Your task to perform on an android device: Find coffee shops on Maps Image 0: 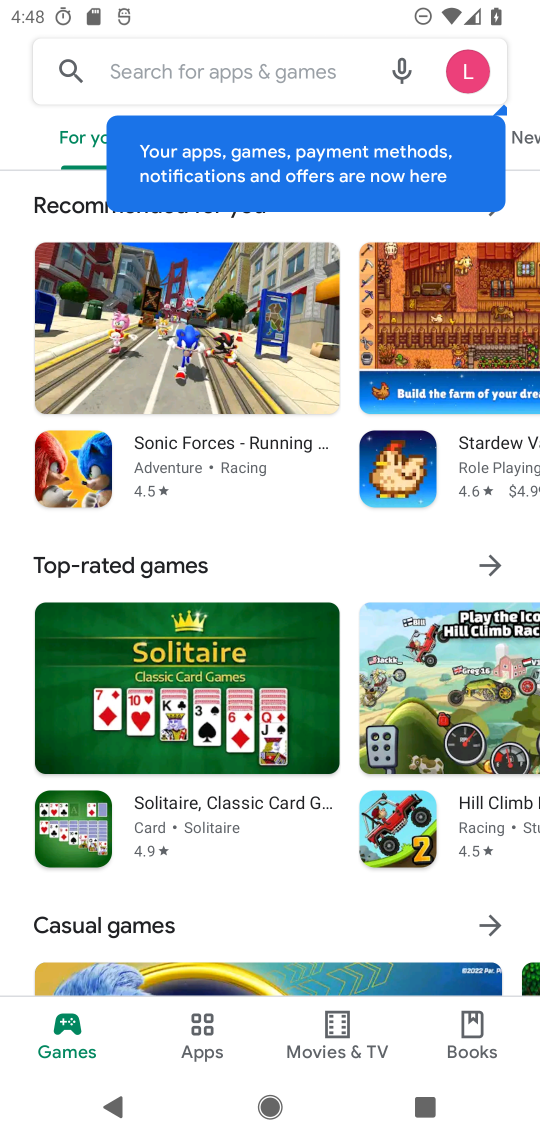
Step 0: press home button
Your task to perform on an android device: Find coffee shops on Maps Image 1: 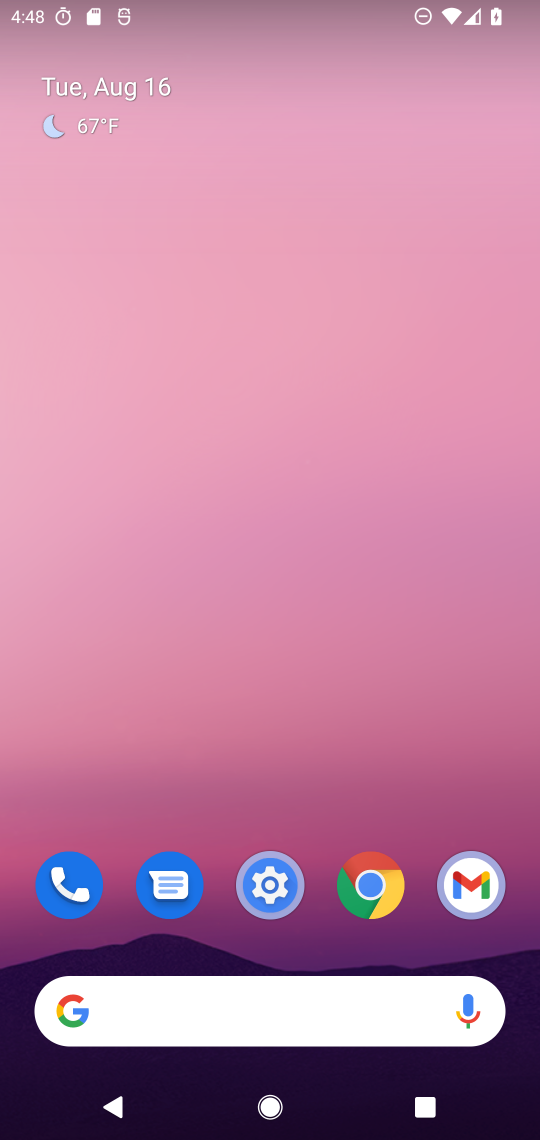
Step 1: drag from (242, 1018) to (203, 147)
Your task to perform on an android device: Find coffee shops on Maps Image 2: 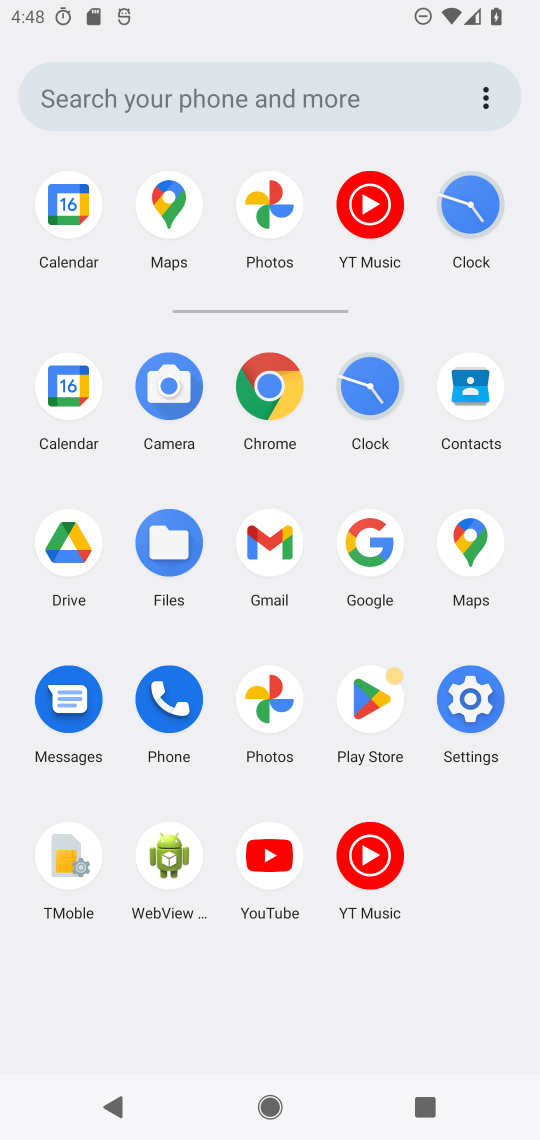
Step 2: click (472, 542)
Your task to perform on an android device: Find coffee shops on Maps Image 3: 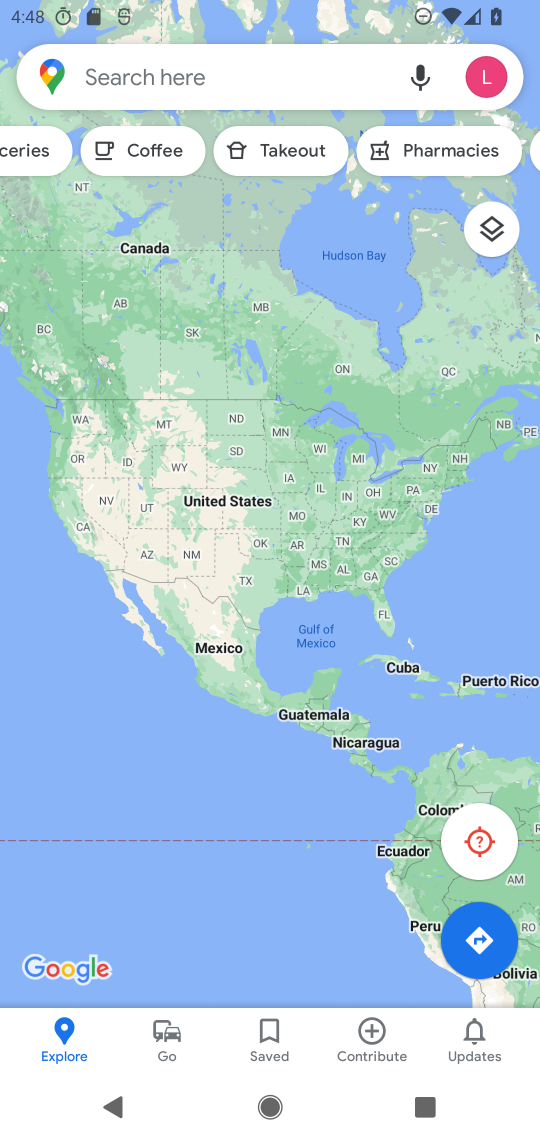
Step 3: click (249, 57)
Your task to perform on an android device: Find coffee shops on Maps Image 4: 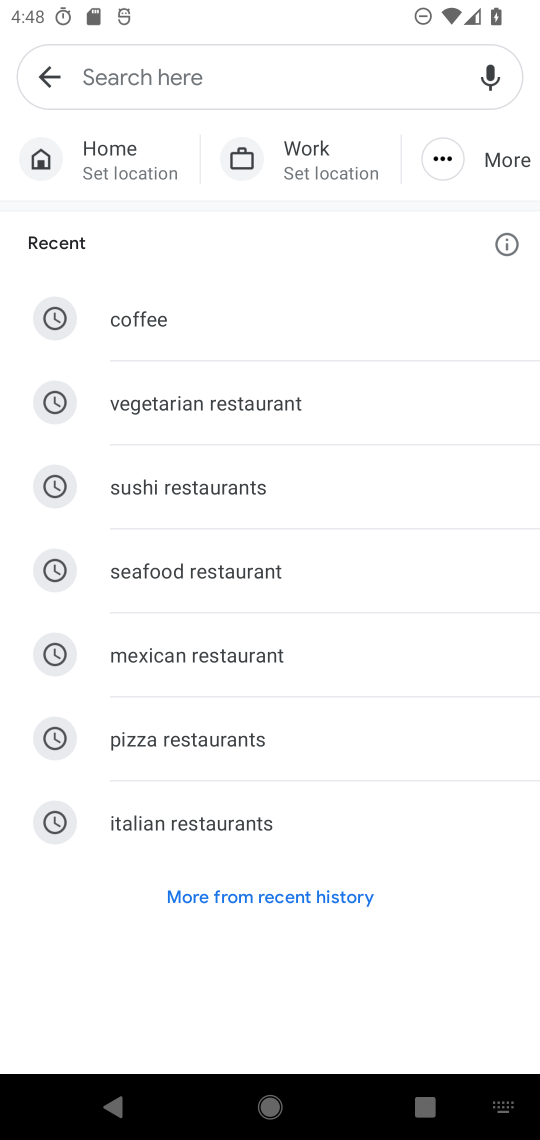
Step 4: click (171, 300)
Your task to perform on an android device: Find coffee shops on Maps Image 5: 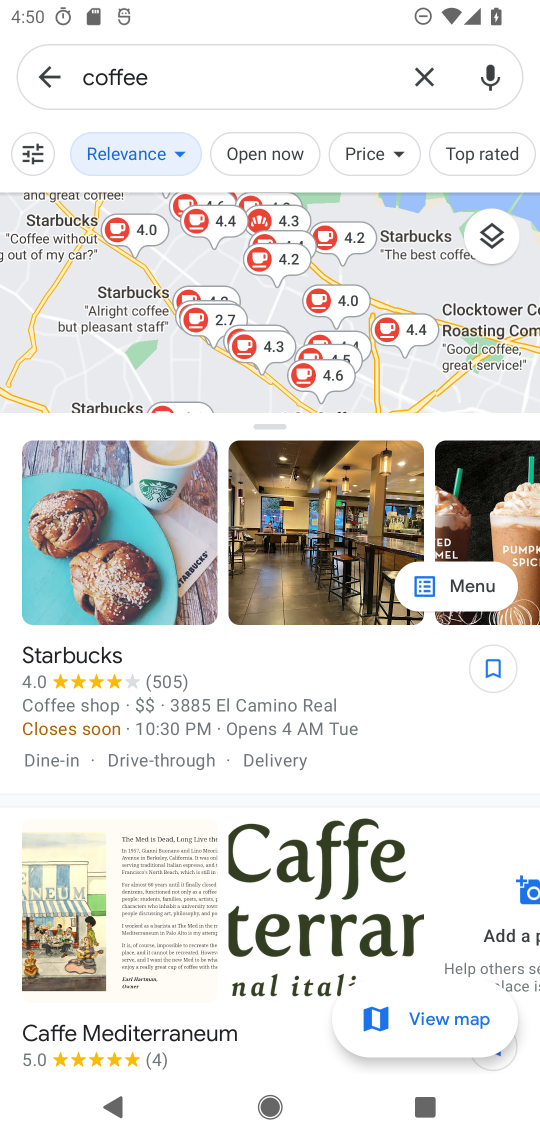
Step 5: task complete